Your task to perform on an android device: Open Yahoo.com Image 0: 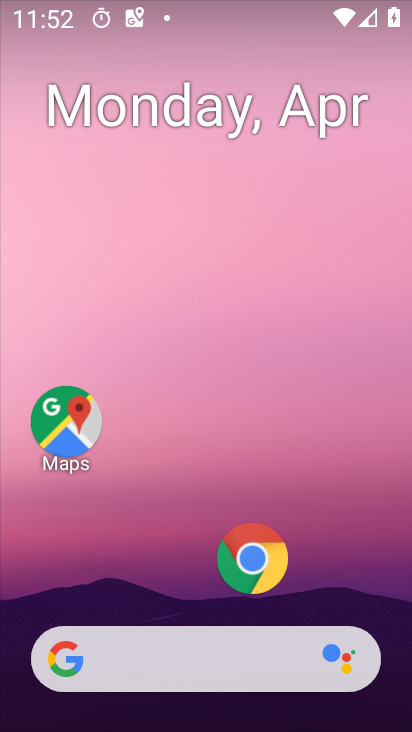
Step 0: click (255, 548)
Your task to perform on an android device: Open Yahoo.com Image 1: 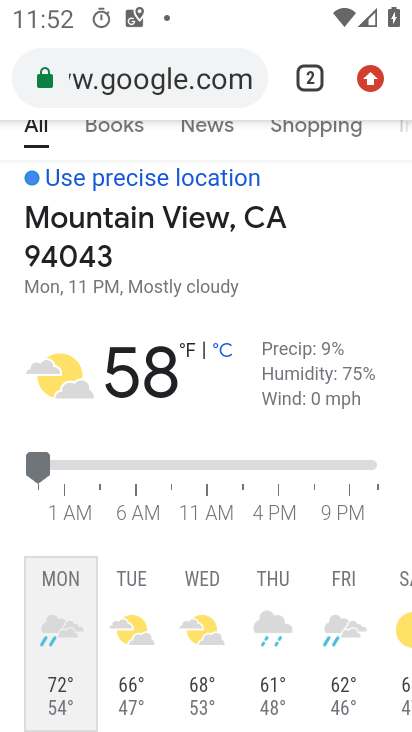
Step 1: drag from (219, 155) to (203, 540)
Your task to perform on an android device: Open Yahoo.com Image 2: 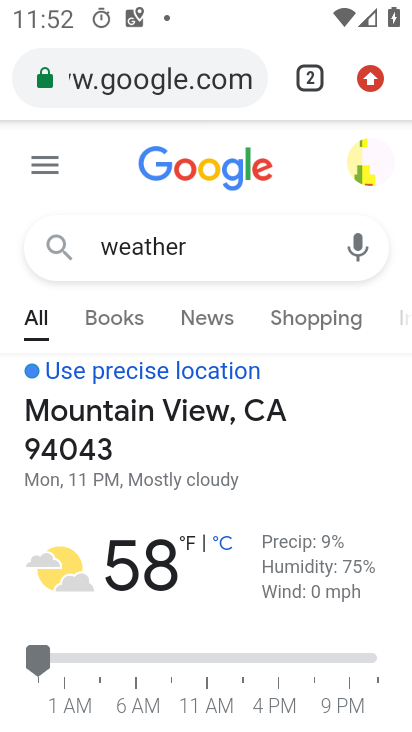
Step 2: drag from (199, 242) to (65, 236)
Your task to perform on an android device: Open Yahoo.com Image 3: 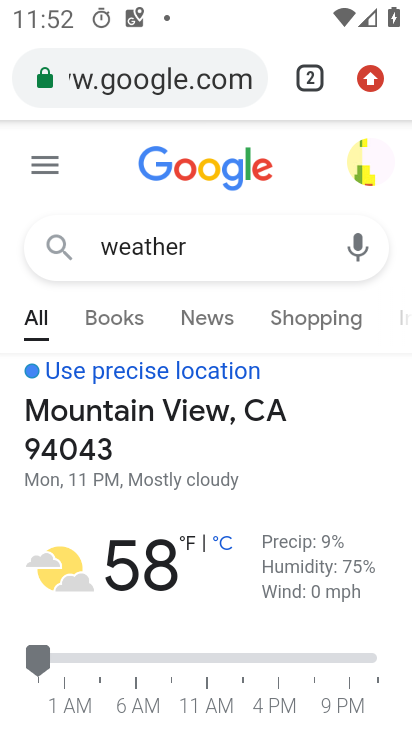
Step 3: click (222, 235)
Your task to perform on an android device: Open Yahoo.com Image 4: 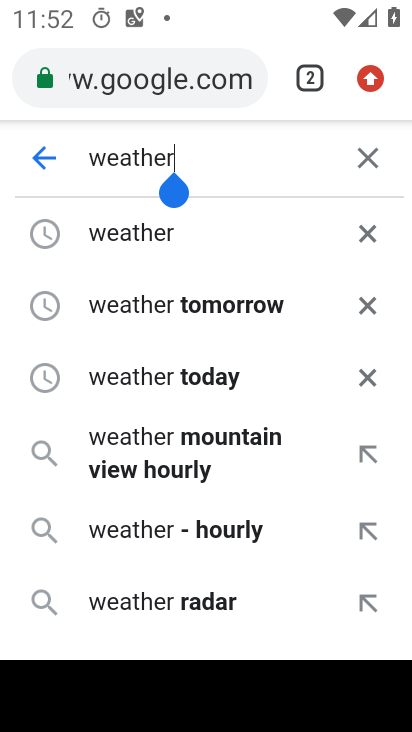
Step 4: click (360, 165)
Your task to perform on an android device: Open Yahoo.com Image 5: 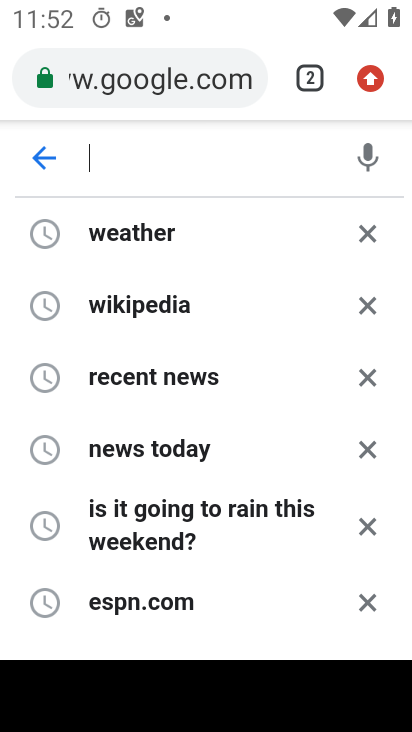
Step 5: type "yahoo.com"
Your task to perform on an android device: Open Yahoo.com Image 6: 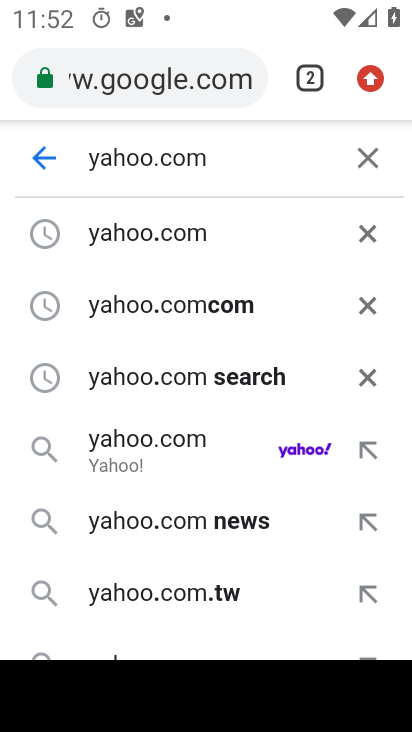
Step 6: click (208, 227)
Your task to perform on an android device: Open Yahoo.com Image 7: 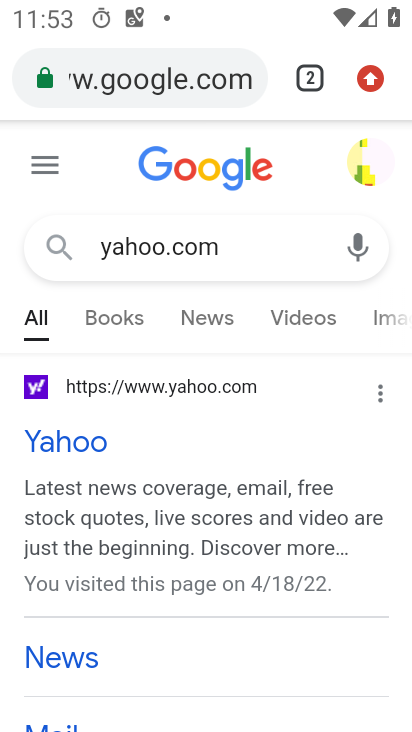
Step 7: task complete